Your task to perform on an android device: See recent photos Image 0: 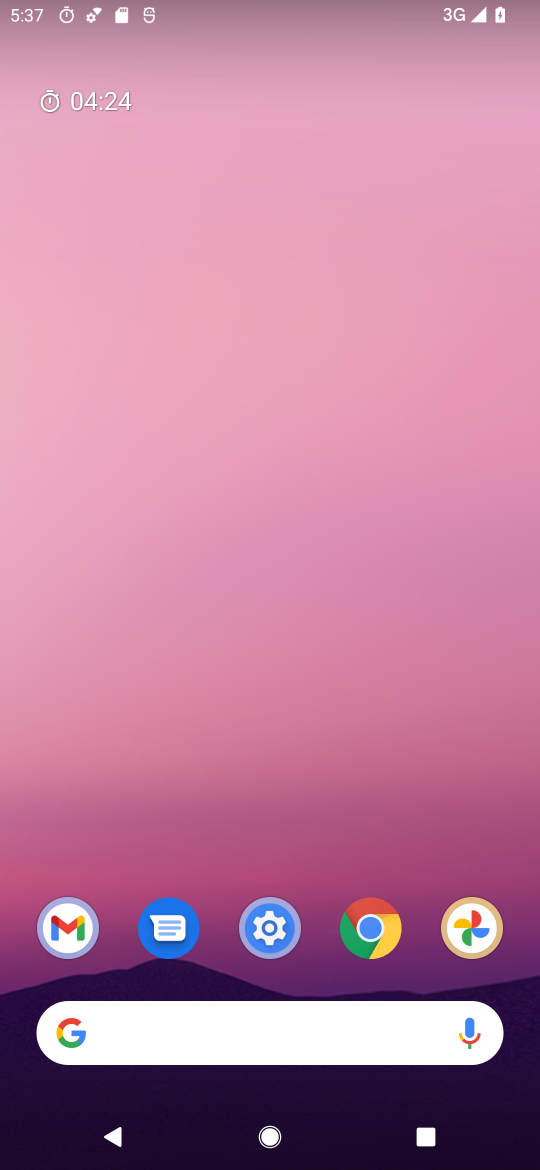
Step 0: click (470, 934)
Your task to perform on an android device: See recent photos Image 1: 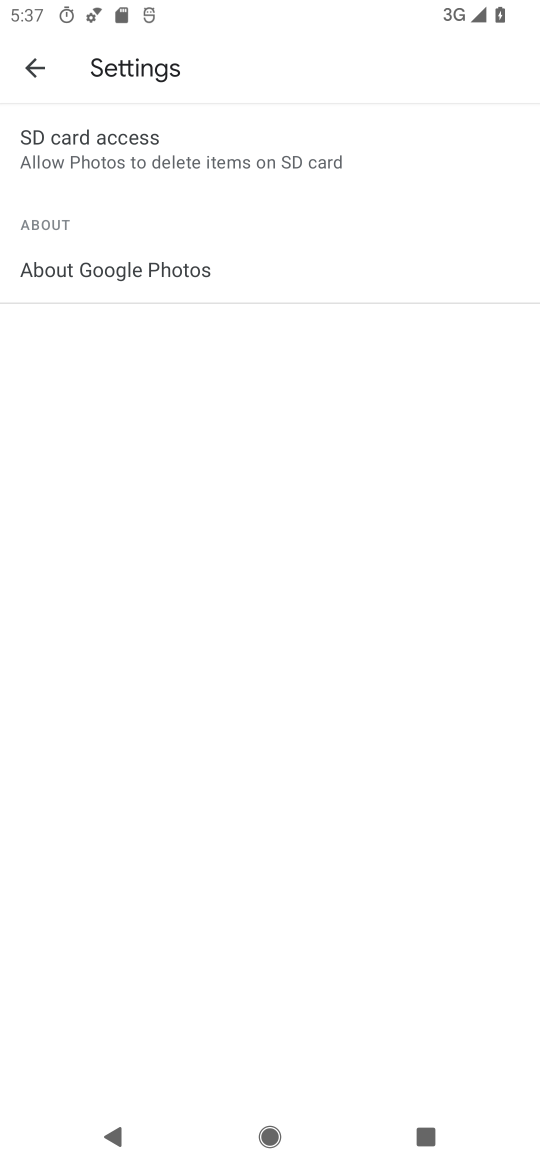
Step 1: click (35, 67)
Your task to perform on an android device: See recent photos Image 2: 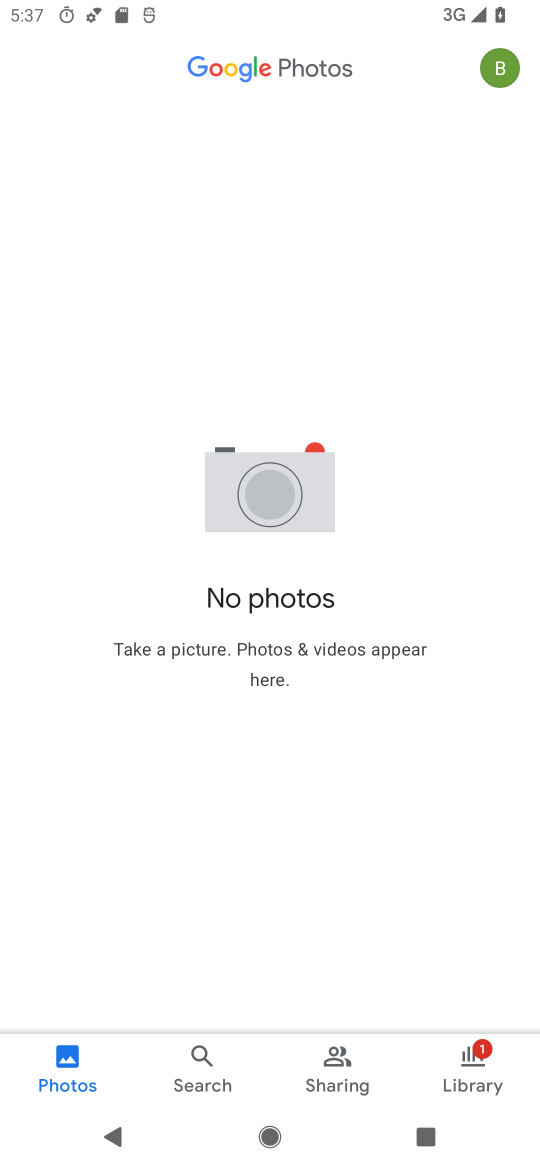
Step 2: task complete